Your task to perform on an android device: open a bookmark in the chrome app Image 0: 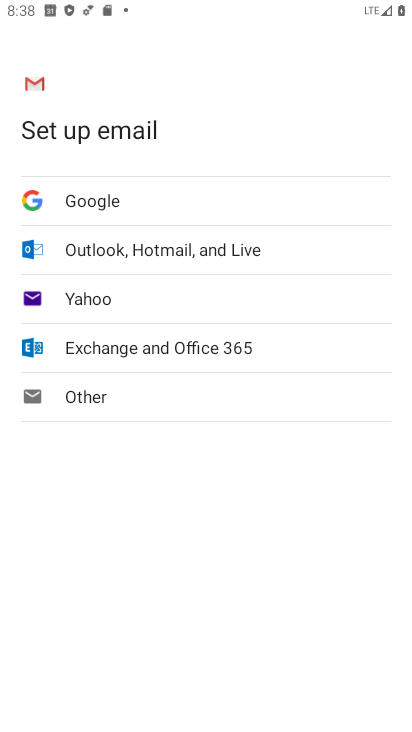
Step 0: press back button
Your task to perform on an android device: open a bookmark in the chrome app Image 1: 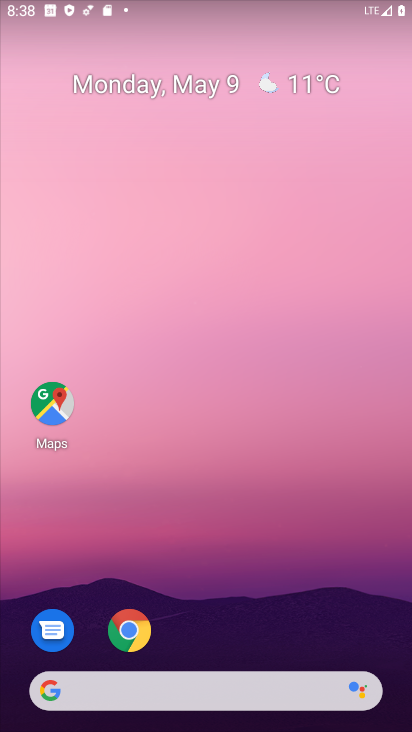
Step 1: click (135, 633)
Your task to perform on an android device: open a bookmark in the chrome app Image 2: 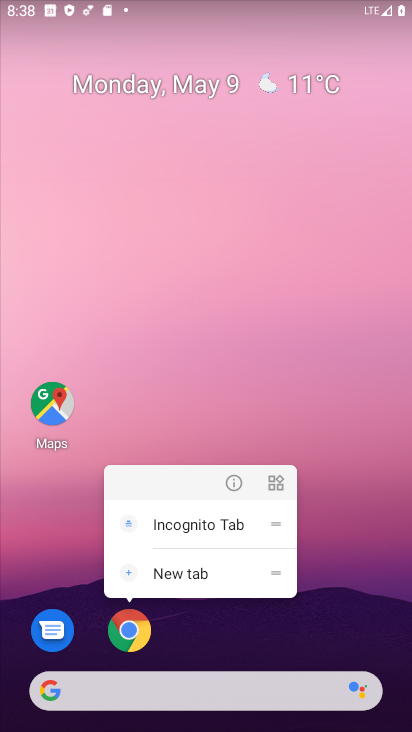
Step 2: click (132, 651)
Your task to perform on an android device: open a bookmark in the chrome app Image 3: 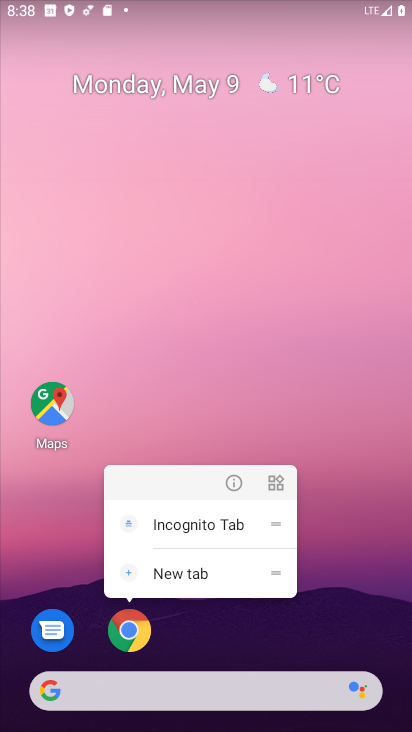
Step 3: click (135, 633)
Your task to perform on an android device: open a bookmark in the chrome app Image 4: 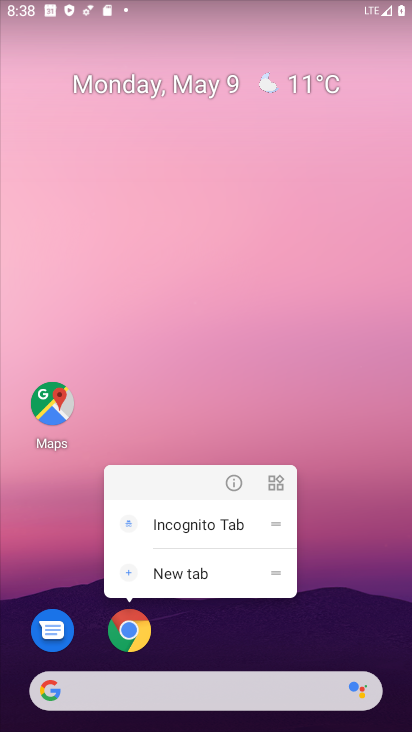
Step 4: click (137, 638)
Your task to perform on an android device: open a bookmark in the chrome app Image 5: 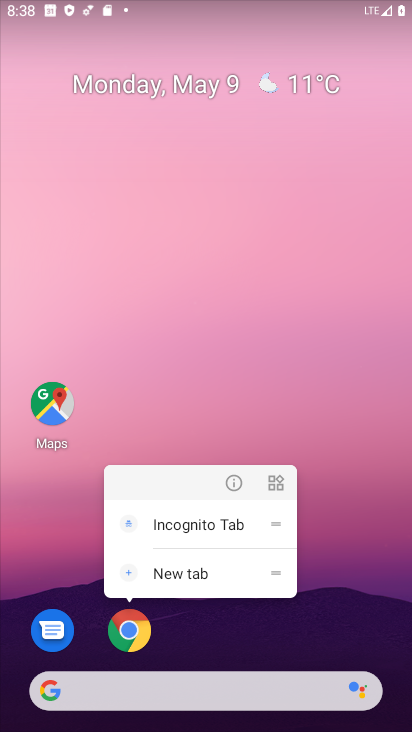
Step 5: click (134, 633)
Your task to perform on an android device: open a bookmark in the chrome app Image 6: 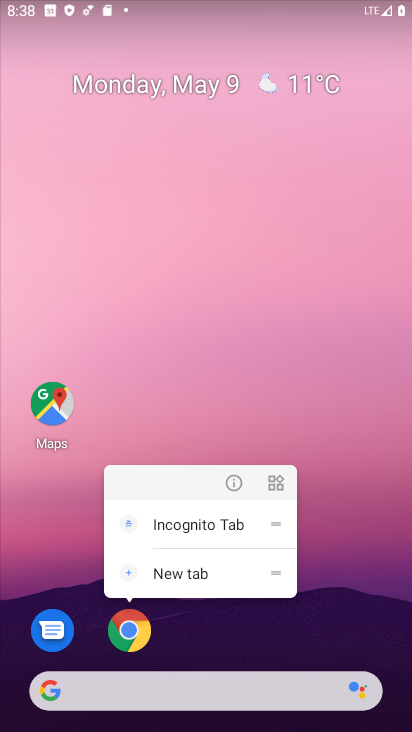
Step 6: click (133, 631)
Your task to perform on an android device: open a bookmark in the chrome app Image 7: 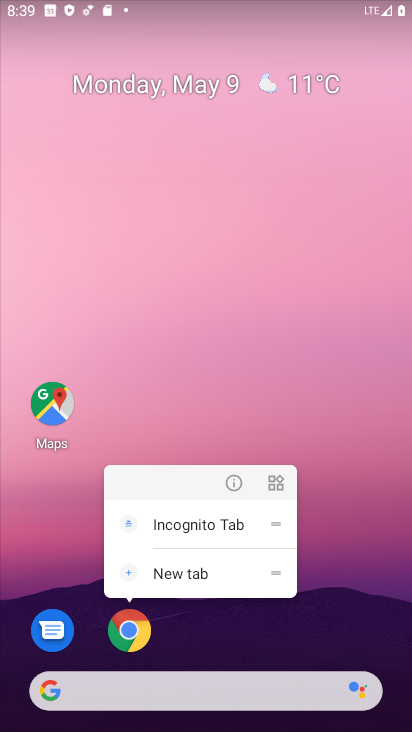
Step 7: click (130, 632)
Your task to perform on an android device: open a bookmark in the chrome app Image 8: 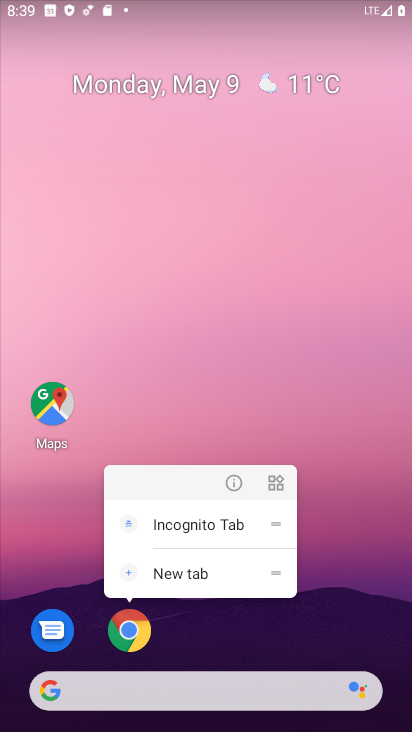
Step 8: click (130, 632)
Your task to perform on an android device: open a bookmark in the chrome app Image 9: 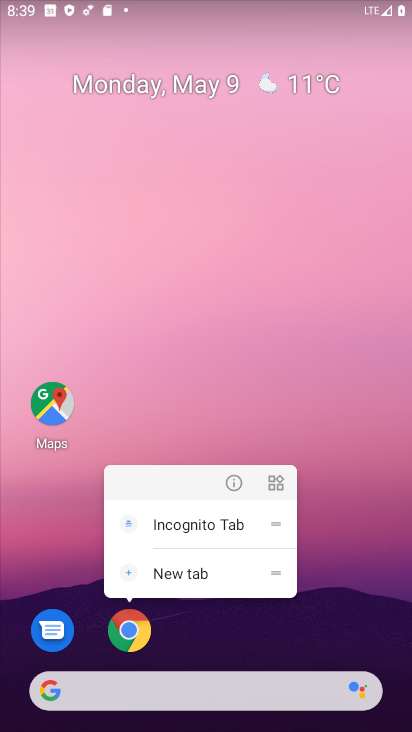
Step 9: click (117, 632)
Your task to perform on an android device: open a bookmark in the chrome app Image 10: 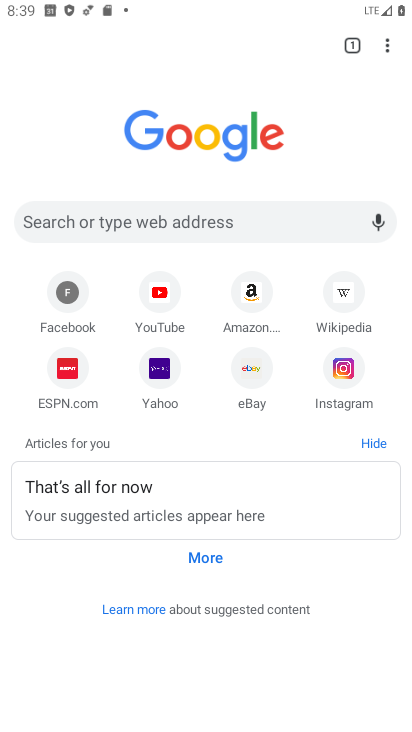
Step 10: drag from (384, 44) to (344, 164)
Your task to perform on an android device: open a bookmark in the chrome app Image 11: 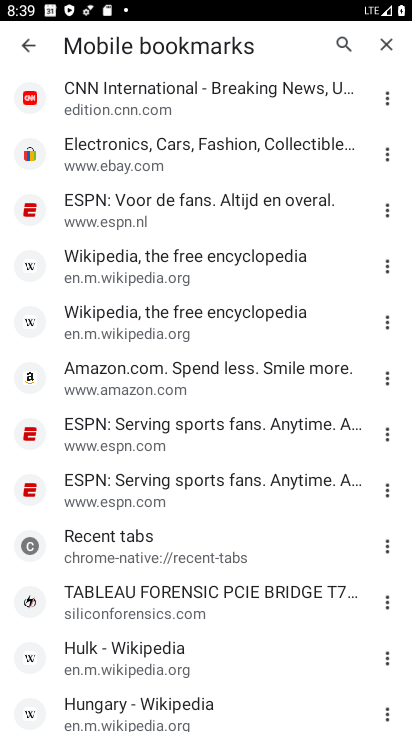
Step 11: click (189, 95)
Your task to perform on an android device: open a bookmark in the chrome app Image 12: 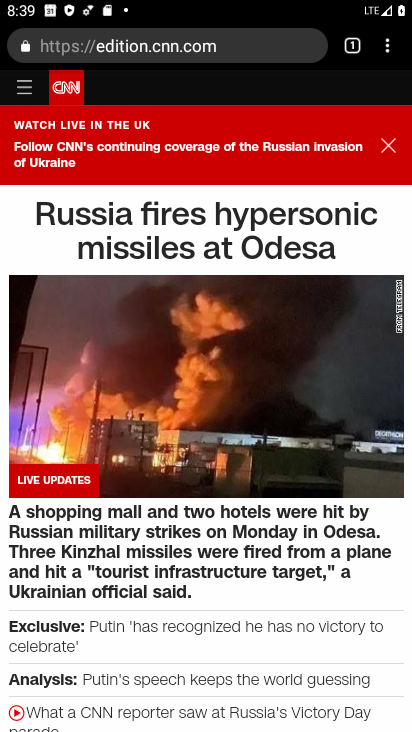
Step 12: task complete